Your task to perform on an android device: What is the capital of Germany? Image 0: 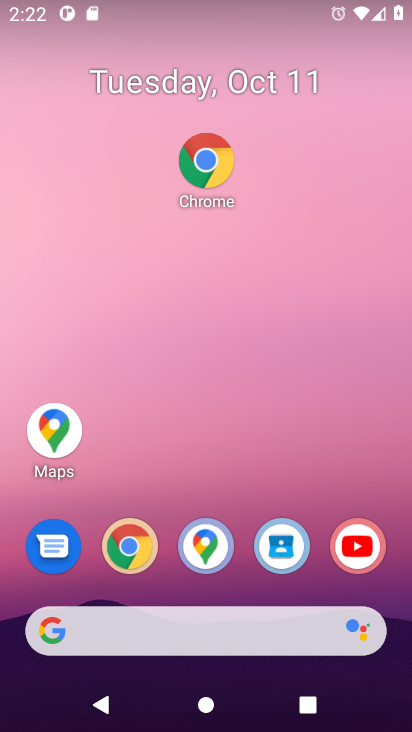
Step 0: click (130, 550)
Your task to perform on an android device: What is the capital of Germany? Image 1: 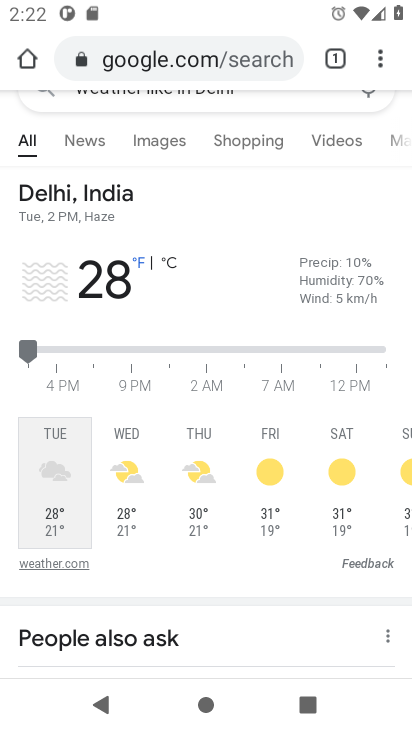
Step 1: click (199, 60)
Your task to perform on an android device: What is the capital of Germany? Image 2: 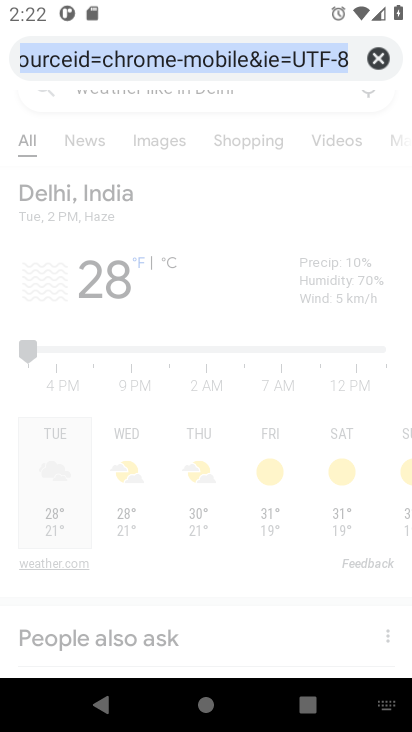
Step 2: type "capital of Germany"
Your task to perform on an android device: What is the capital of Germany? Image 3: 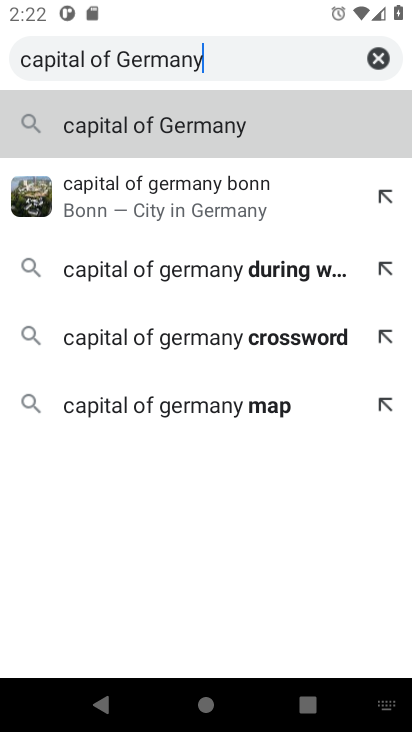
Step 3: type ""
Your task to perform on an android device: What is the capital of Germany? Image 4: 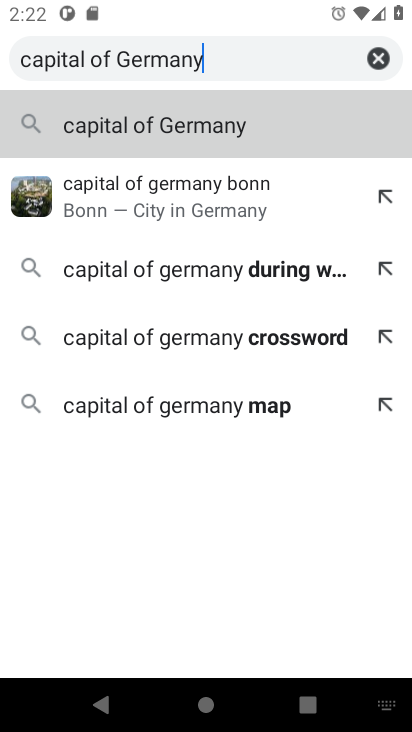
Step 4: press enter
Your task to perform on an android device: What is the capital of Germany? Image 5: 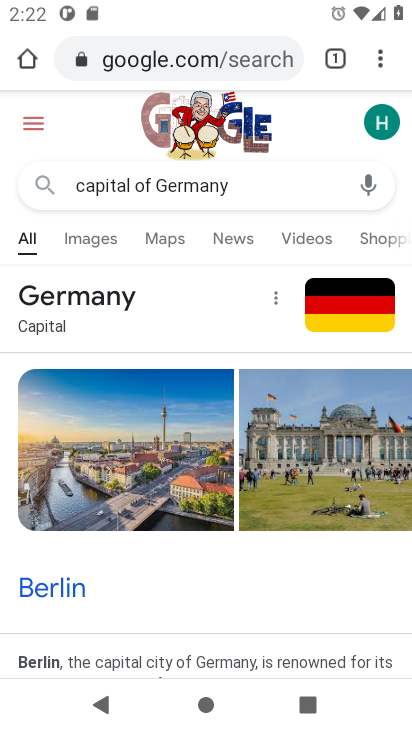
Step 5: task complete